Your task to perform on an android device: Open calendar and show me the fourth week of next month Image 0: 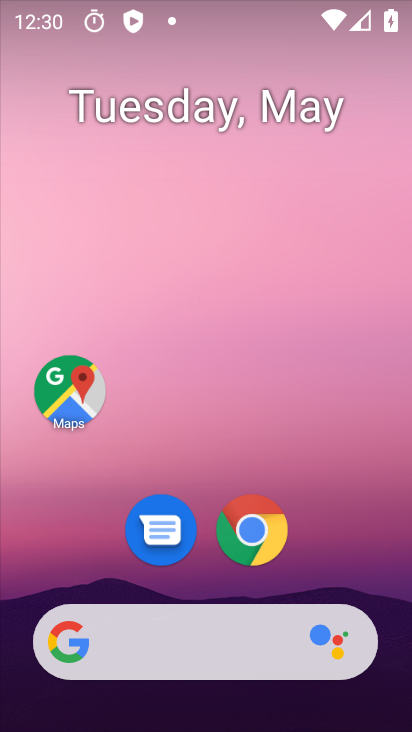
Step 0: drag from (314, 455) to (216, 21)
Your task to perform on an android device: Open calendar and show me the fourth week of next month Image 1: 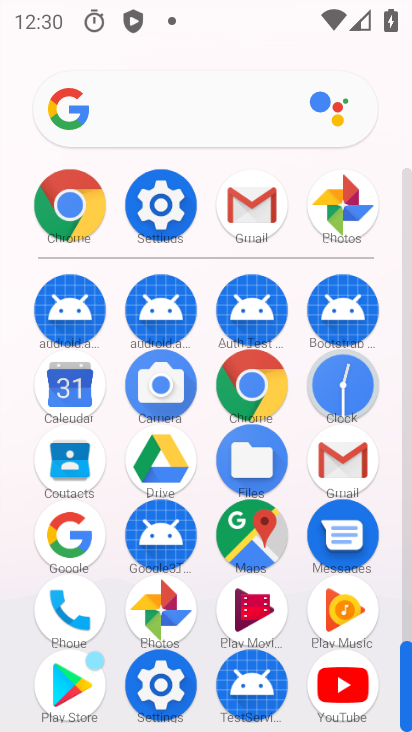
Step 1: drag from (18, 568) to (17, 225)
Your task to perform on an android device: Open calendar and show me the fourth week of next month Image 2: 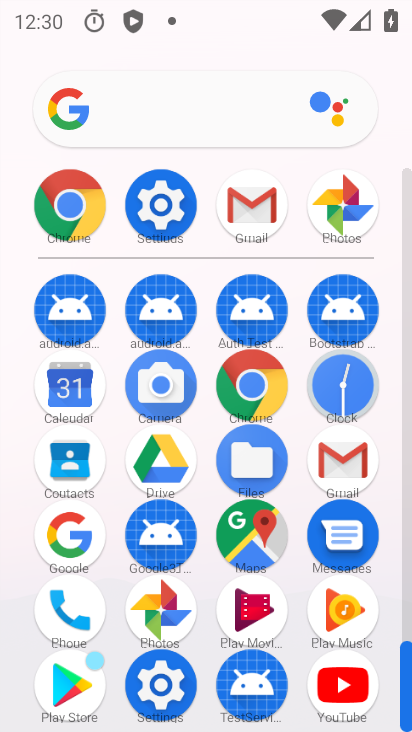
Step 2: drag from (0, 511) to (17, 238)
Your task to perform on an android device: Open calendar and show me the fourth week of next month Image 3: 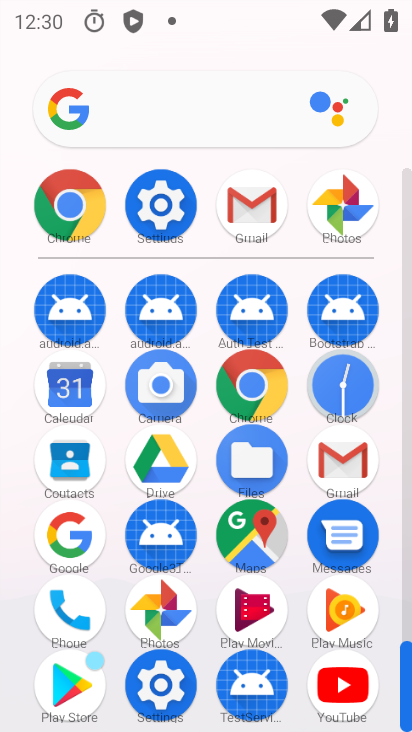
Step 3: drag from (17, 560) to (16, 251)
Your task to perform on an android device: Open calendar and show me the fourth week of next month Image 4: 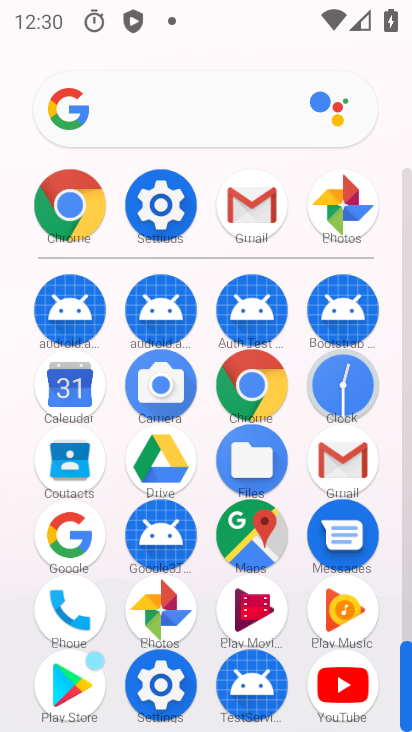
Step 4: click (251, 532)
Your task to perform on an android device: Open calendar and show me the fourth week of next month Image 5: 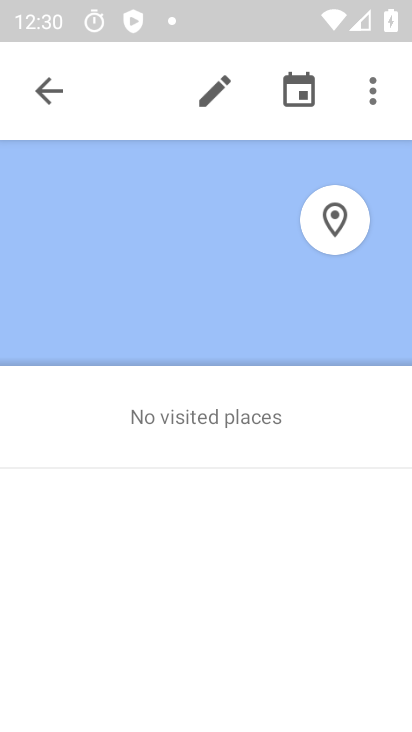
Step 5: click (43, 96)
Your task to perform on an android device: Open calendar and show me the fourth week of next month Image 6: 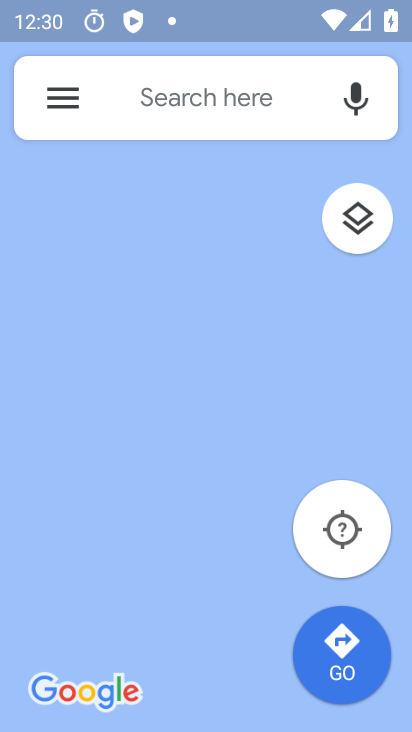
Step 6: press back button
Your task to perform on an android device: Open calendar and show me the fourth week of next month Image 7: 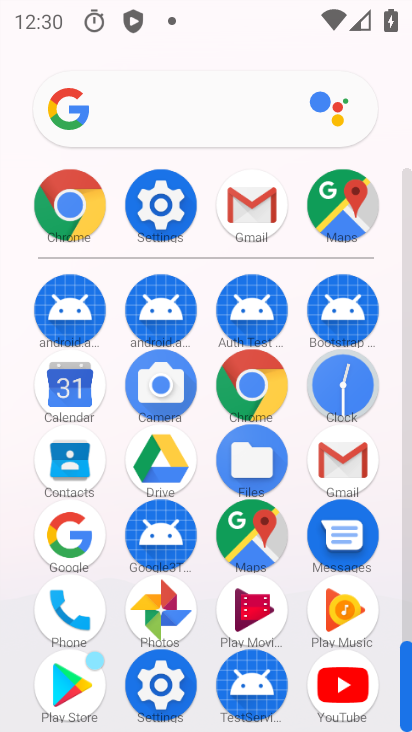
Step 7: click (62, 374)
Your task to perform on an android device: Open calendar and show me the fourth week of next month Image 8: 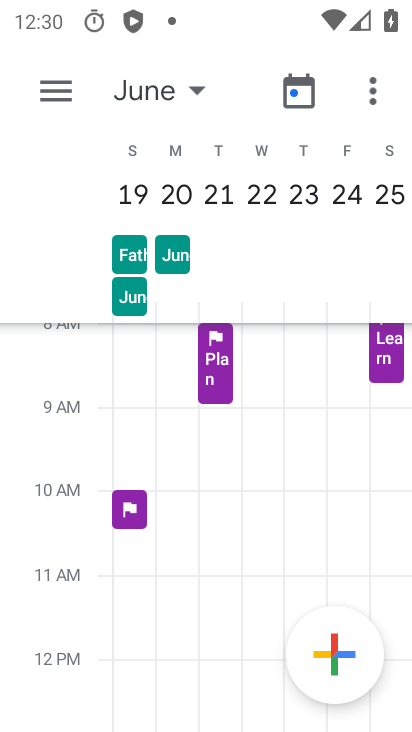
Step 8: click (57, 87)
Your task to perform on an android device: Open calendar and show me the fourth week of next month Image 9: 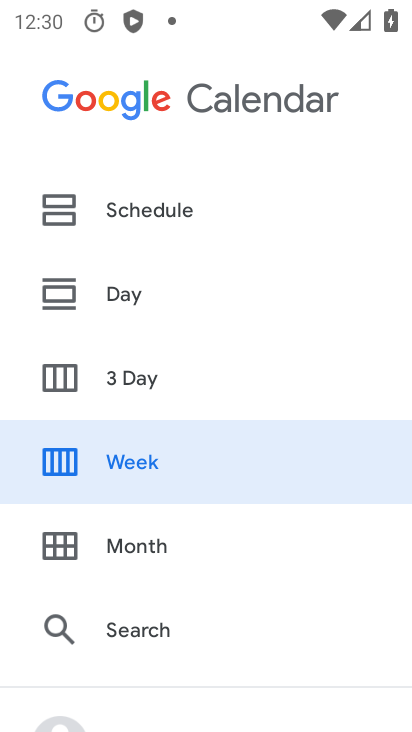
Step 9: click (192, 455)
Your task to perform on an android device: Open calendar and show me the fourth week of next month Image 10: 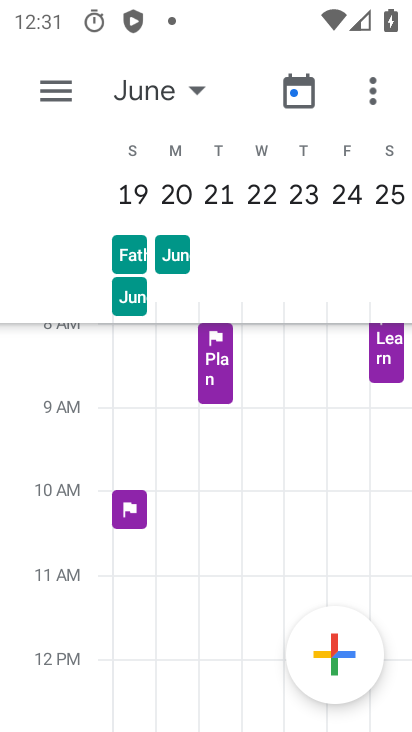
Step 10: click (190, 89)
Your task to perform on an android device: Open calendar and show me the fourth week of next month Image 11: 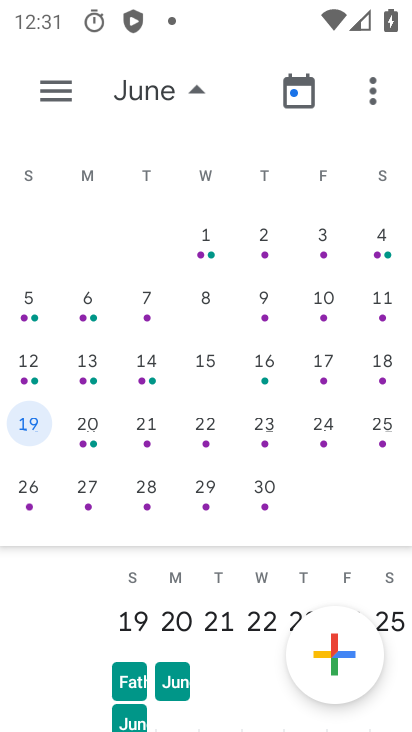
Step 11: click (296, 87)
Your task to perform on an android device: Open calendar and show me the fourth week of next month Image 12: 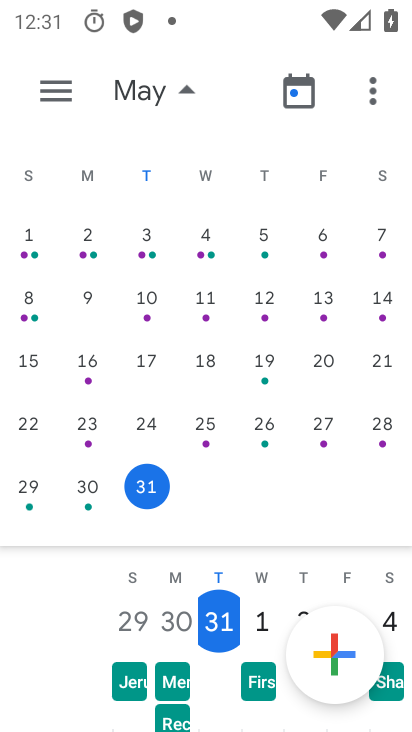
Step 12: drag from (379, 297) to (259, 276)
Your task to perform on an android device: Open calendar and show me the fourth week of next month Image 13: 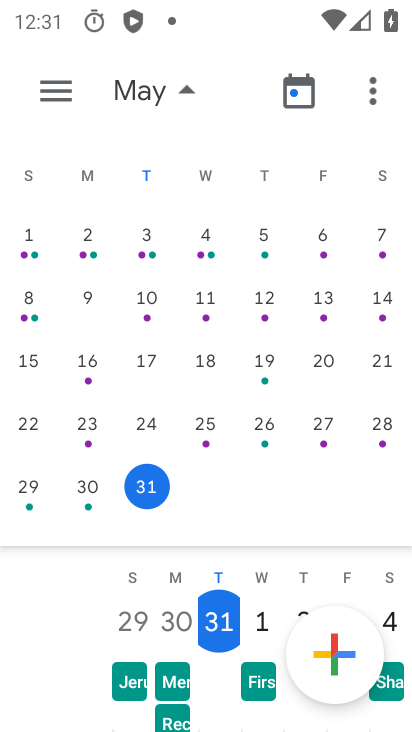
Step 13: click (22, 417)
Your task to perform on an android device: Open calendar and show me the fourth week of next month Image 14: 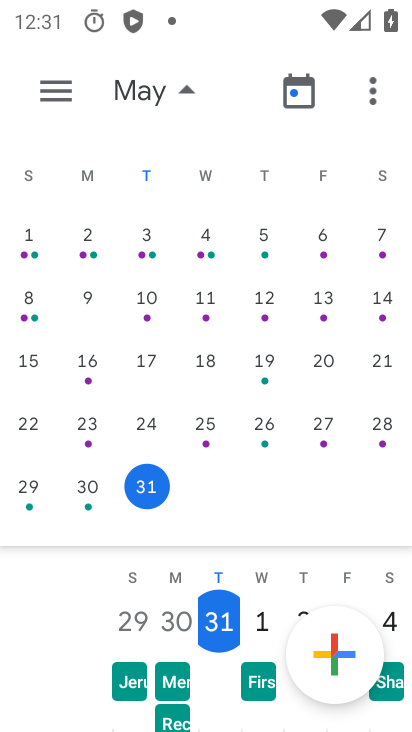
Step 14: click (28, 424)
Your task to perform on an android device: Open calendar and show me the fourth week of next month Image 15: 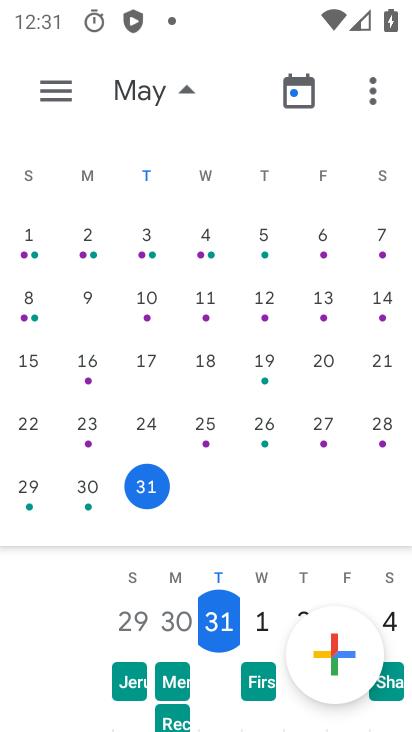
Step 15: click (28, 424)
Your task to perform on an android device: Open calendar and show me the fourth week of next month Image 16: 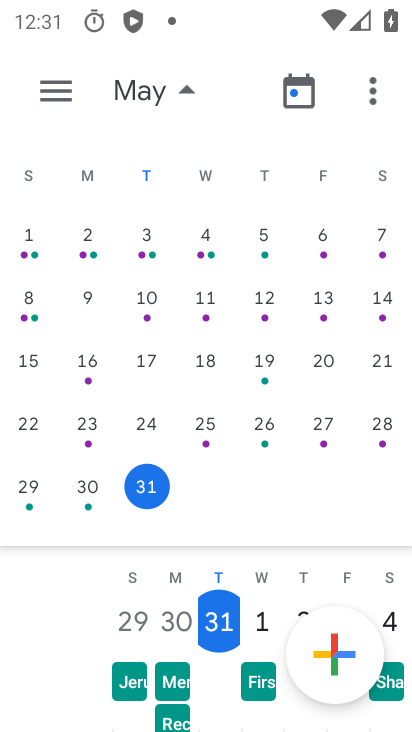
Step 16: click (33, 425)
Your task to perform on an android device: Open calendar and show me the fourth week of next month Image 17: 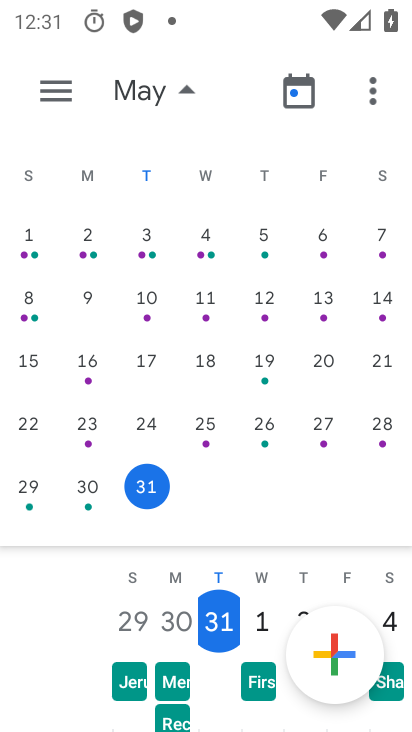
Step 17: click (36, 421)
Your task to perform on an android device: Open calendar and show me the fourth week of next month Image 18: 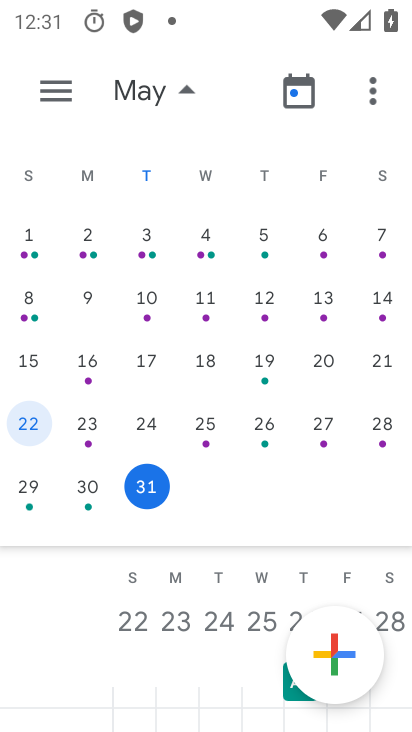
Step 18: click (51, 100)
Your task to perform on an android device: Open calendar and show me the fourth week of next month Image 19: 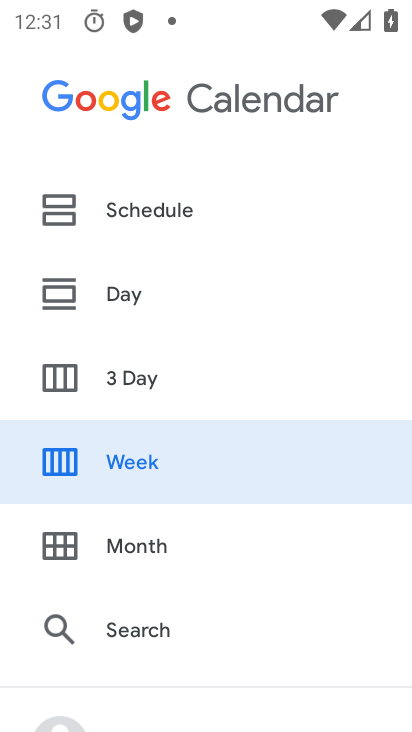
Step 19: click (126, 280)
Your task to perform on an android device: Open calendar and show me the fourth week of next month Image 20: 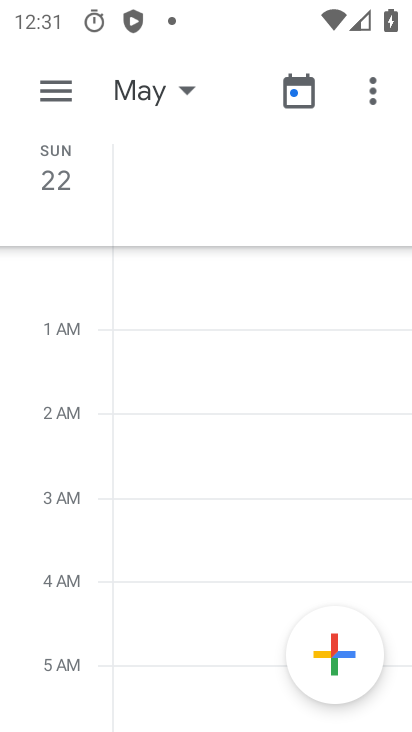
Step 20: click (46, 85)
Your task to perform on an android device: Open calendar and show me the fourth week of next month Image 21: 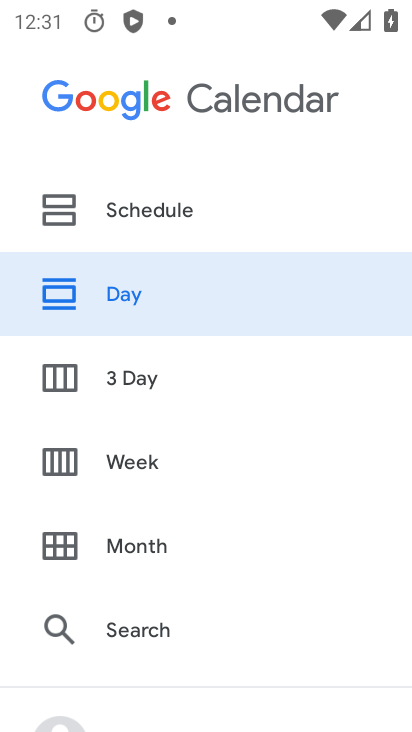
Step 21: click (125, 449)
Your task to perform on an android device: Open calendar and show me the fourth week of next month Image 22: 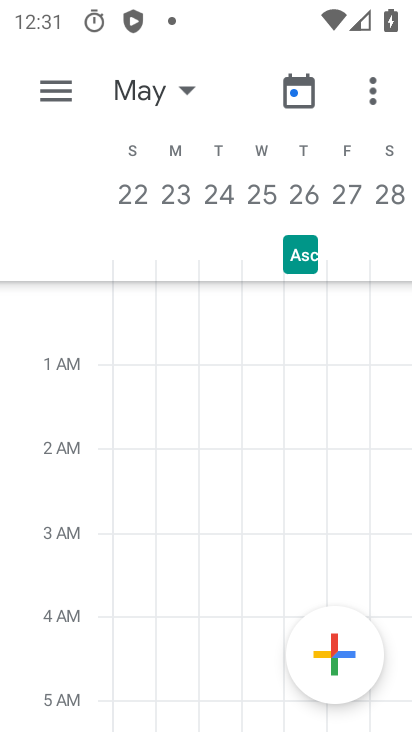
Step 22: task complete